Your task to perform on an android device: check out phone information Image 0: 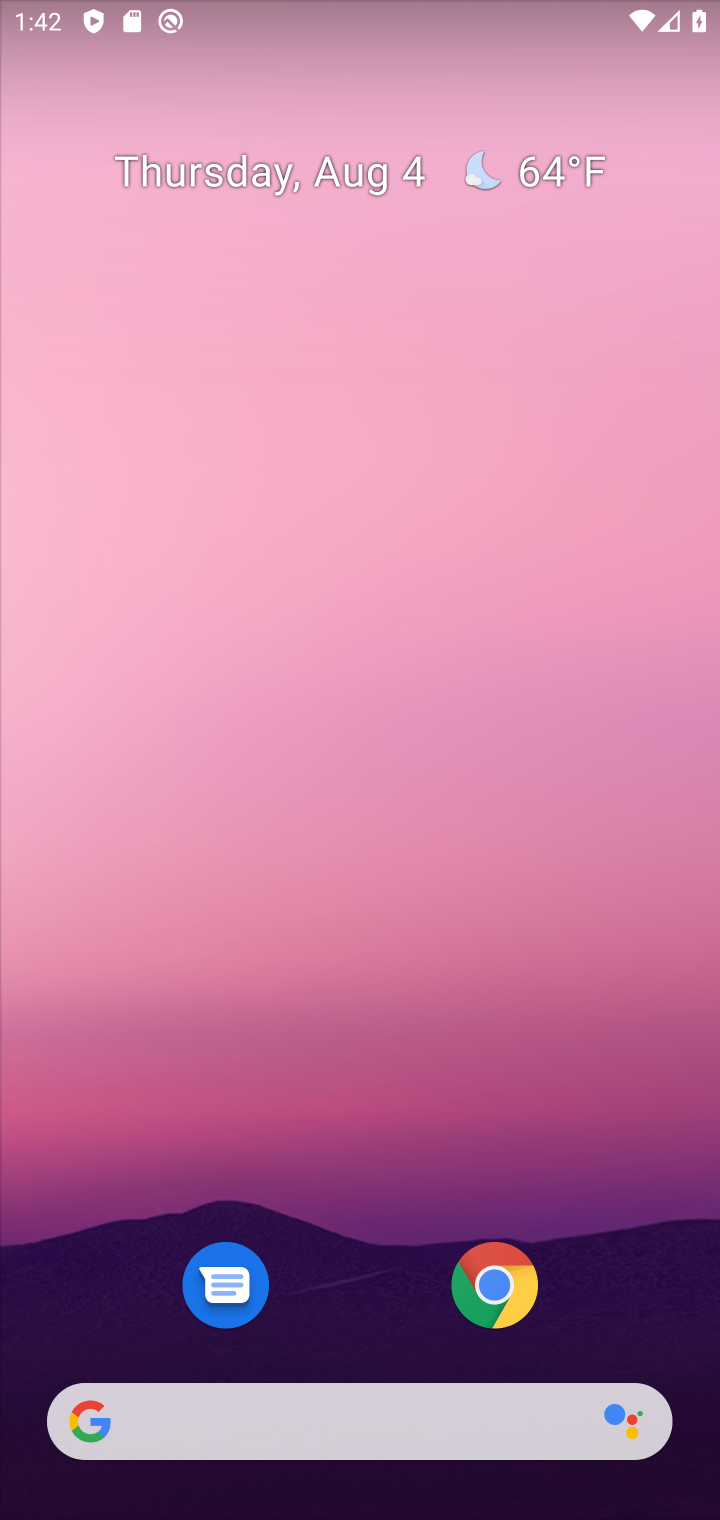
Step 0: drag from (640, 1321) to (582, 280)
Your task to perform on an android device: check out phone information Image 1: 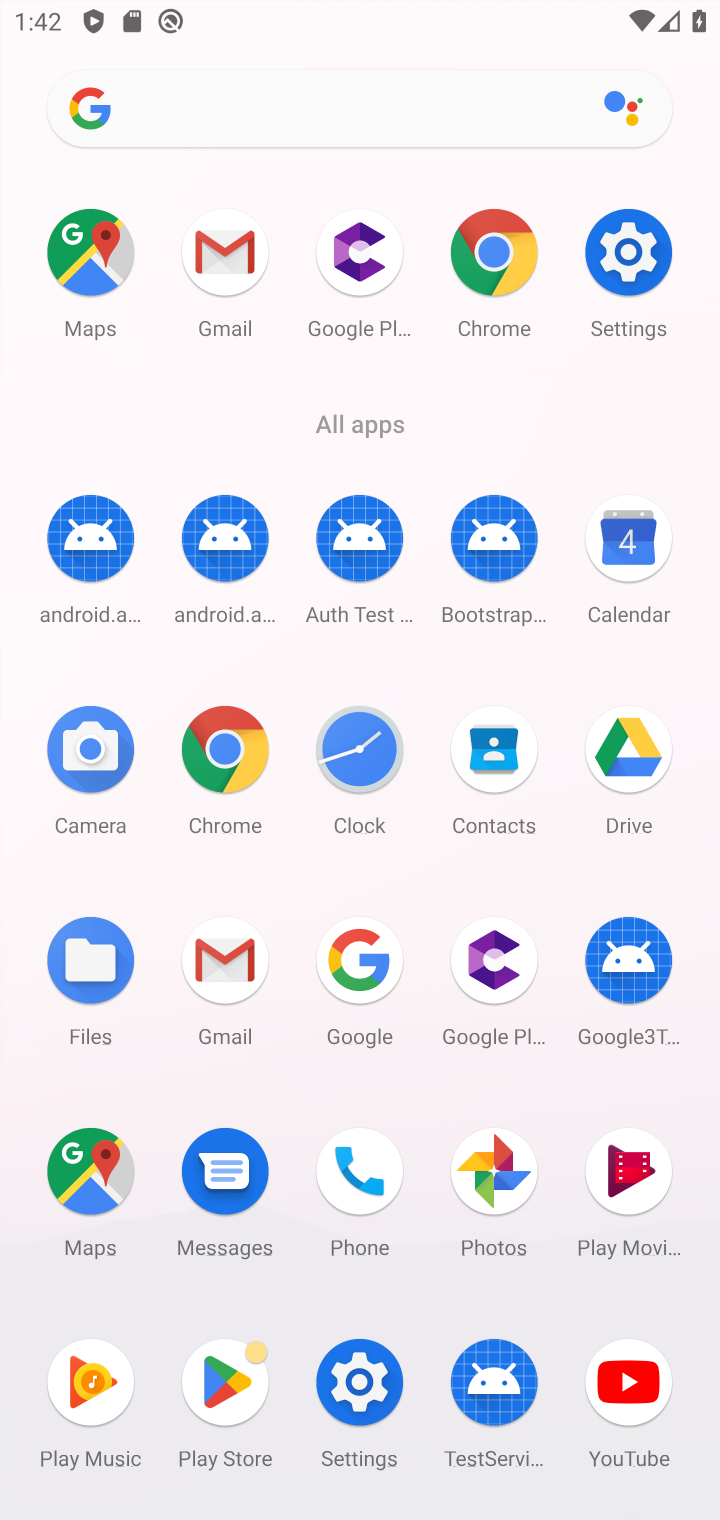
Step 1: click (358, 1379)
Your task to perform on an android device: check out phone information Image 2: 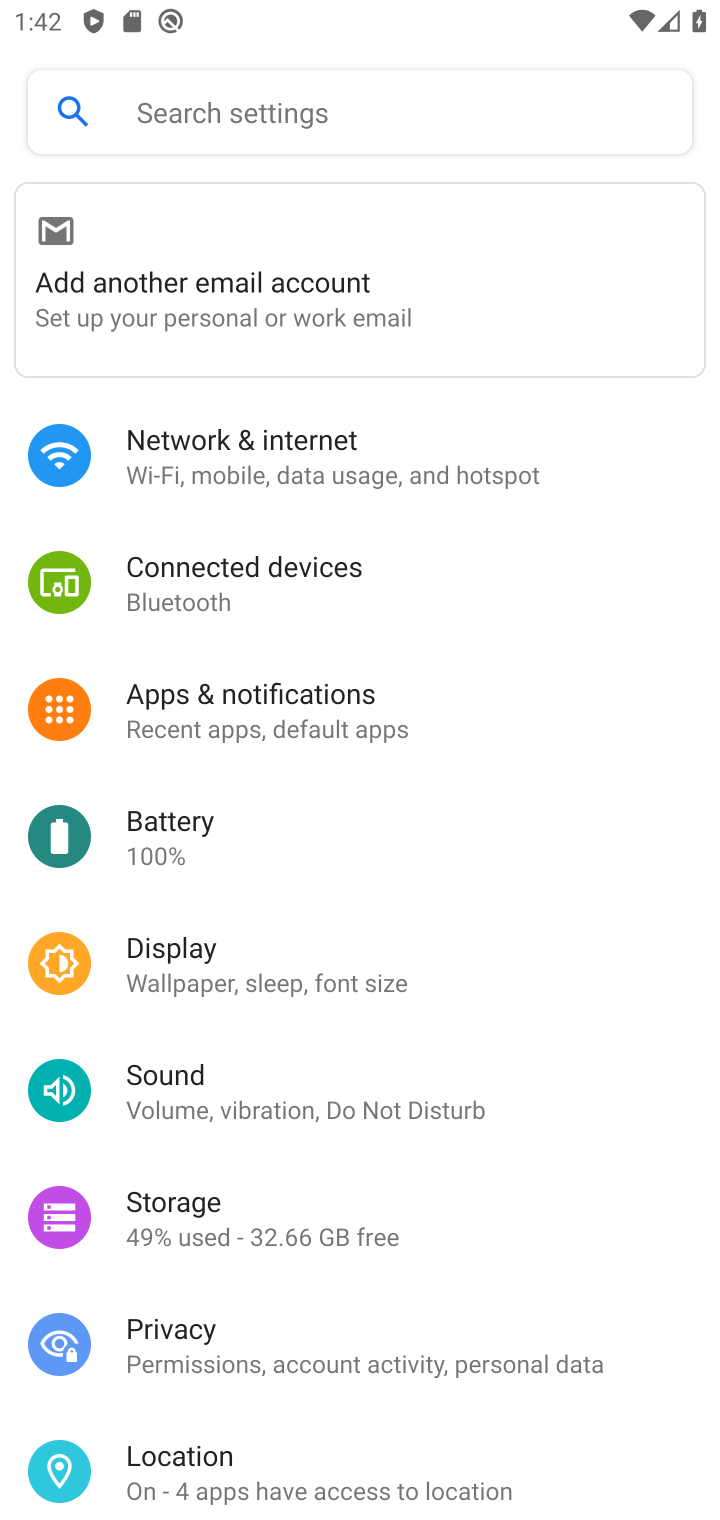
Step 2: drag from (641, 1413) to (587, 493)
Your task to perform on an android device: check out phone information Image 3: 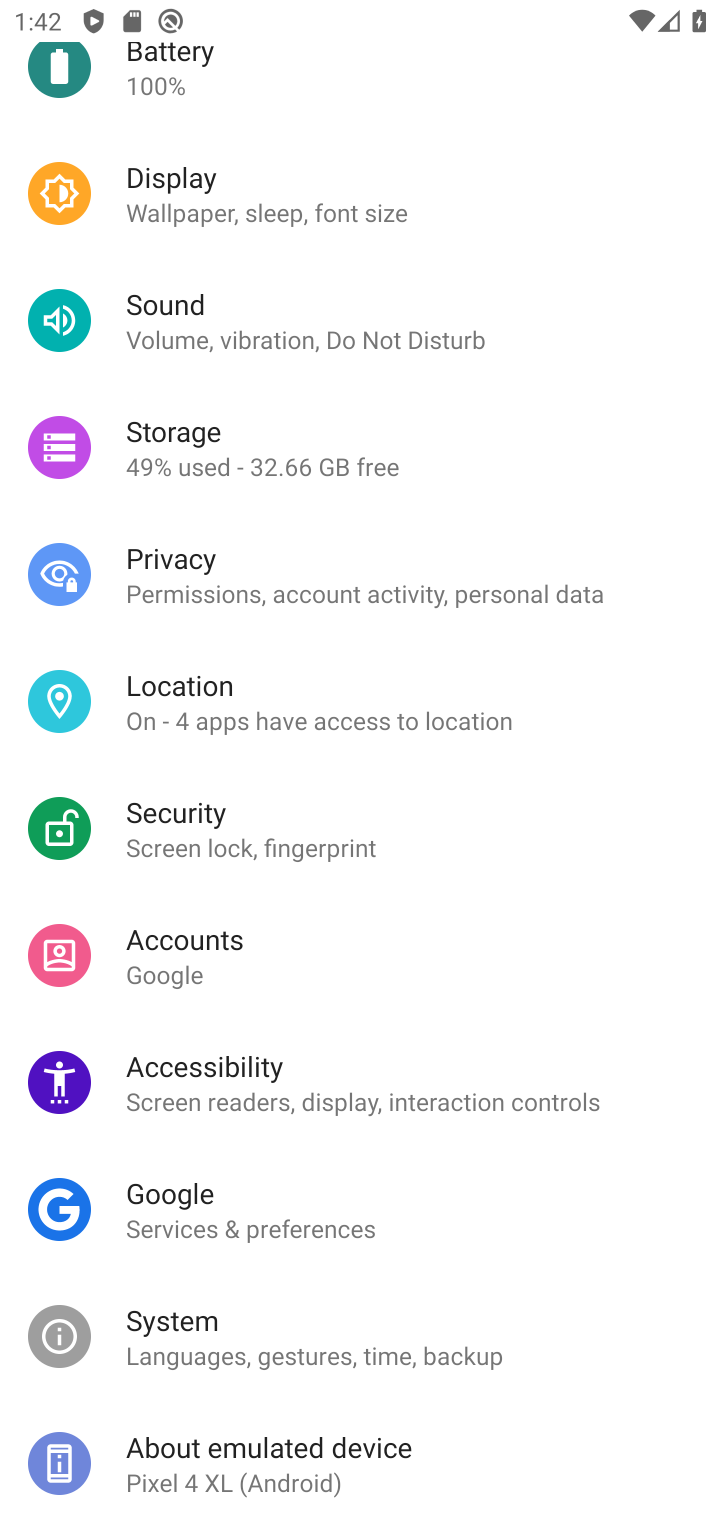
Step 3: drag from (602, 1461) to (592, 732)
Your task to perform on an android device: check out phone information Image 4: 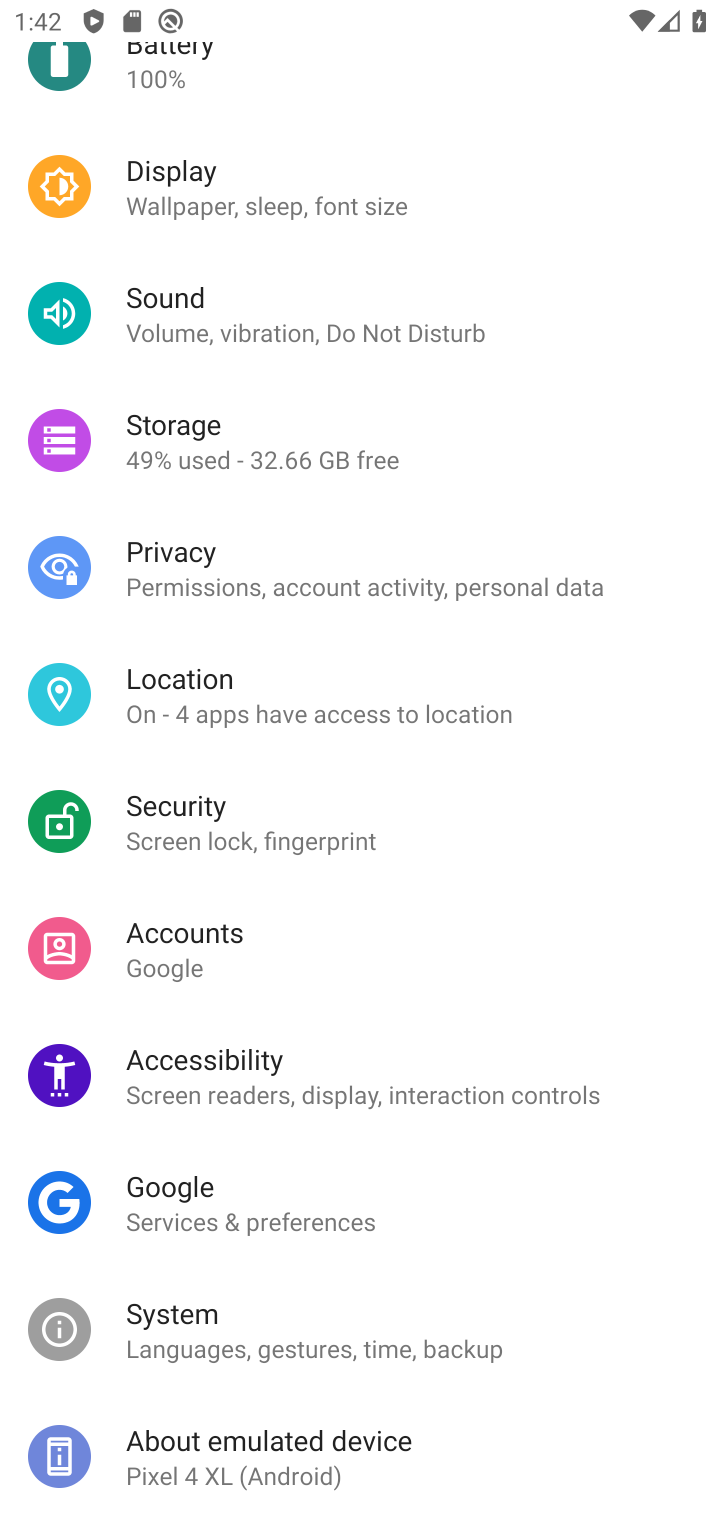
Step 4: click (212, 1442)
Your task to perform on an android device: check out phone information Image 5: 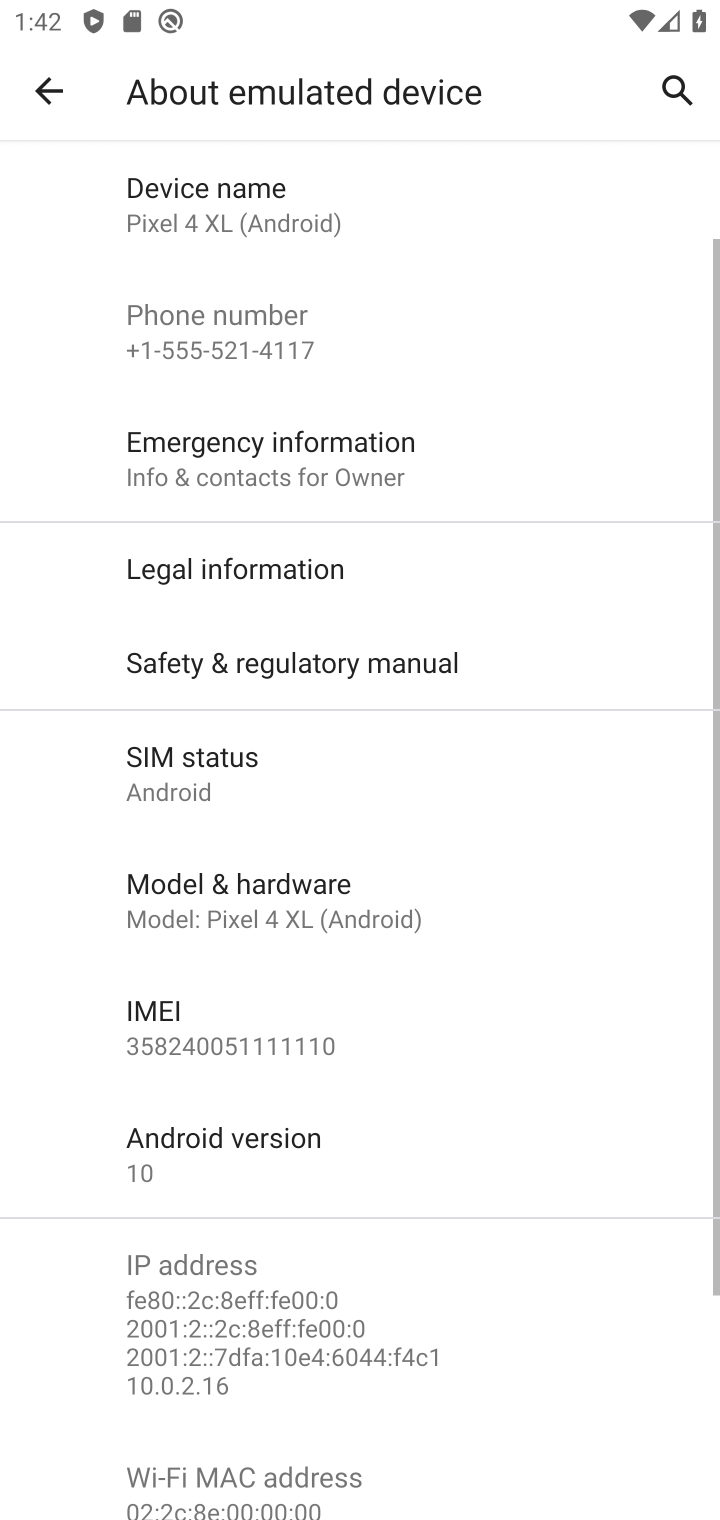
Step 5: task complete